Your task to perform on an android device: Go to Maps Image 0: 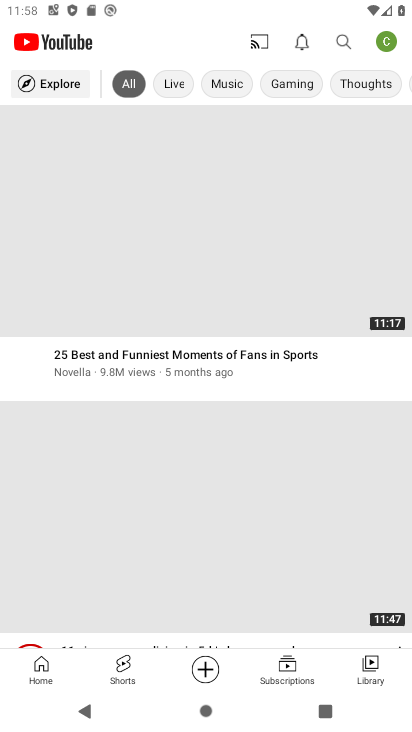
Step 0: press home button
Your task to perform on an android device: Go to Maps Image 1: 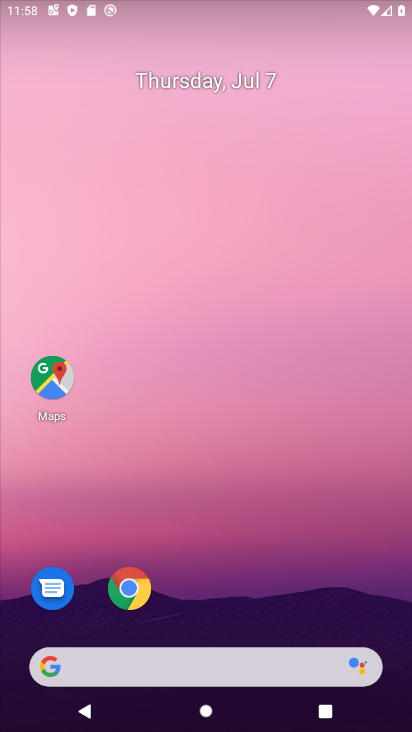
Step 1: drag from (186, 610) to (231, 112)
Your task to perform on an android device: Go to Maps Image 2: 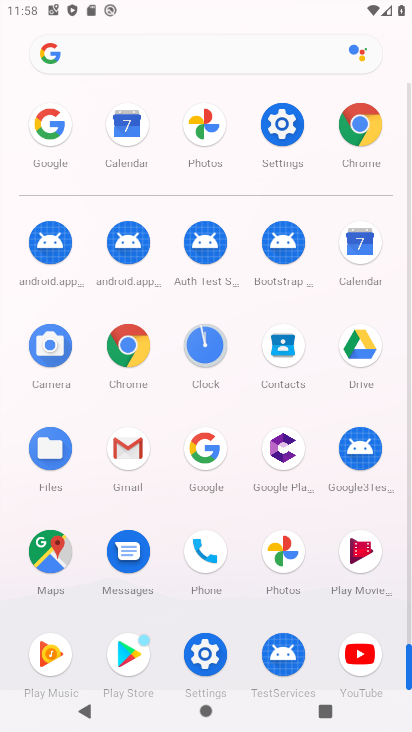
Step 2: click (46, 550)
Your task to perform on an android device: Go to Maps Image 3: 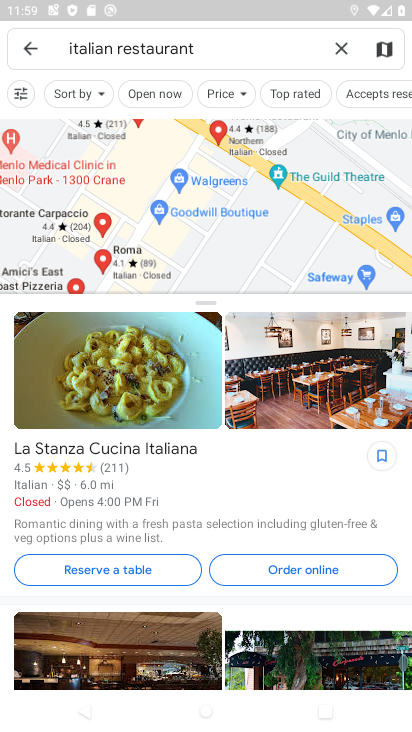
Step 3: task complete